Your task to perform on an android device: change the clock display to analog Image 0: 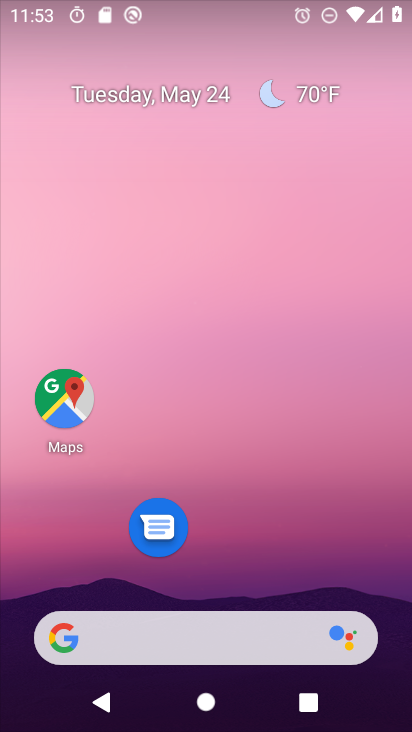
Step 0: drag from (260, 522) to (252, 92)
Your task to perform on an android device: change the clock display to analog Image 1: 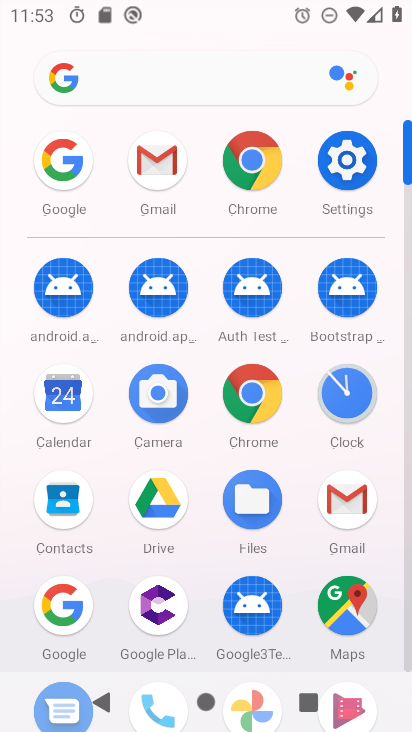
Step 1: click (346, 397)
Your task to perform on an android device: change the clock display to analog Image 2: 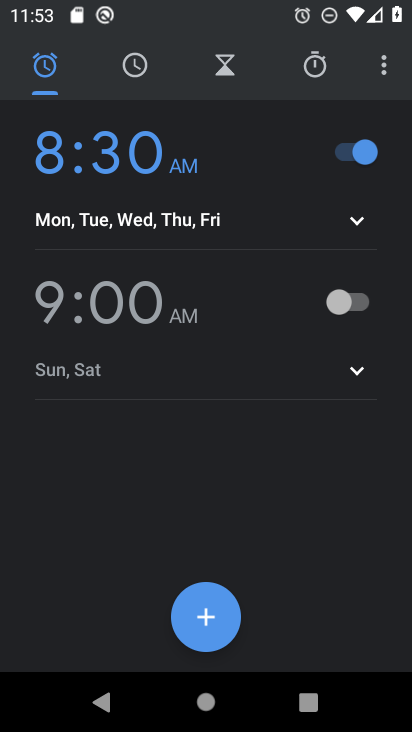
Step 2: click (374, 64)
Your task to perform on an android device: change the clock display to analog Image 3: 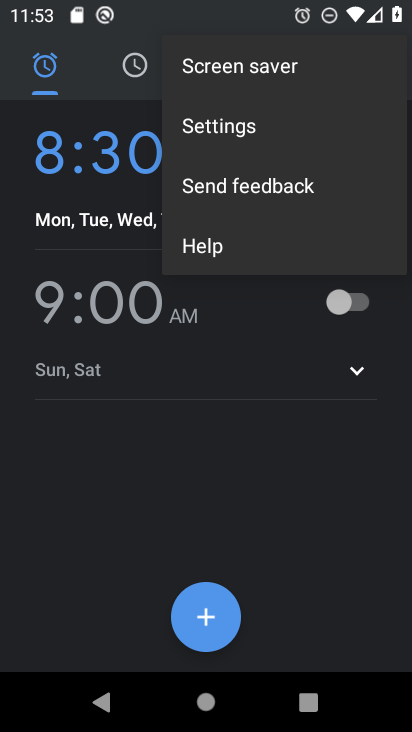
Step 3: click (237, 138)
Your task to perform on an android device: change the clock display to analog Image 4: 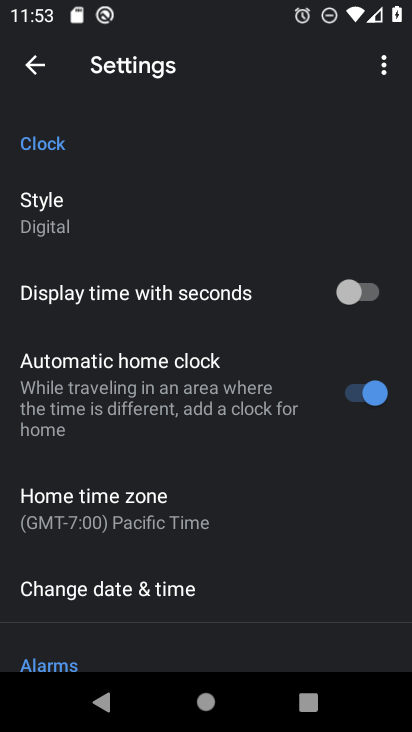
Step 4: click (68, 231)
Your task to perform on an android device: change the clock display to analog Image 5: 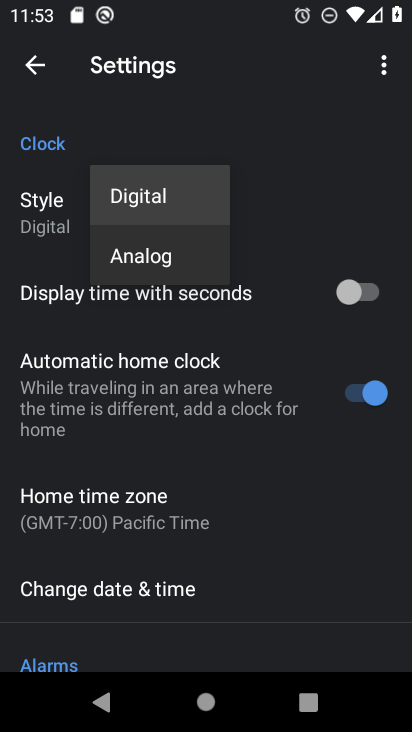
Step 5: click (148, 272)
Your task to perform on an android device: change the clock display to analog Image 6: 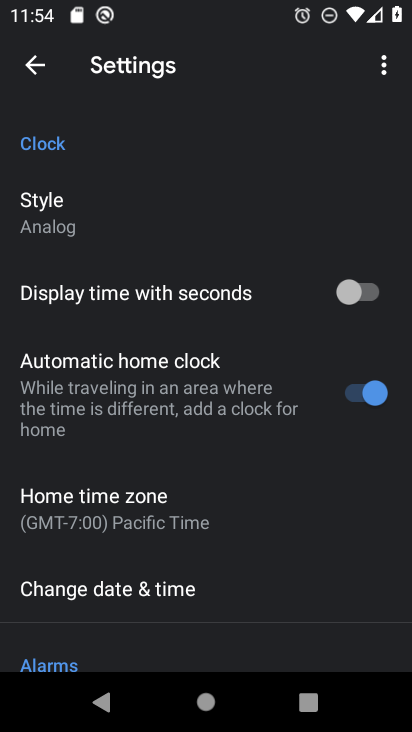
Step 6: task complete